Your task to perform on an android device: Open Google Maps and go to "Timeline" Image 0: 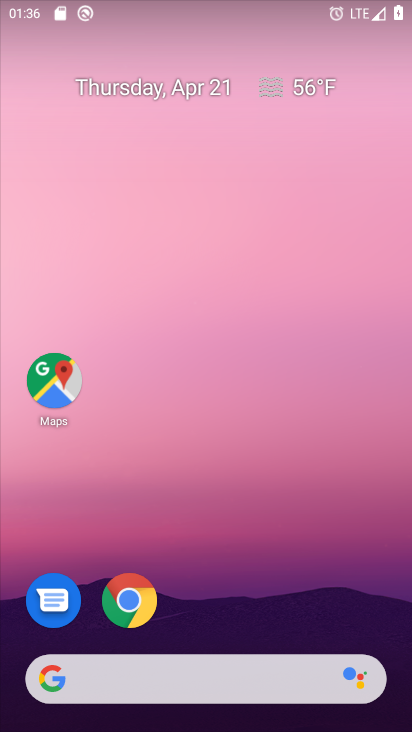
Step 0: click (61, 376)
Your task to perform on an android device: Open Google Maps and go to "Timeline" Image 1: 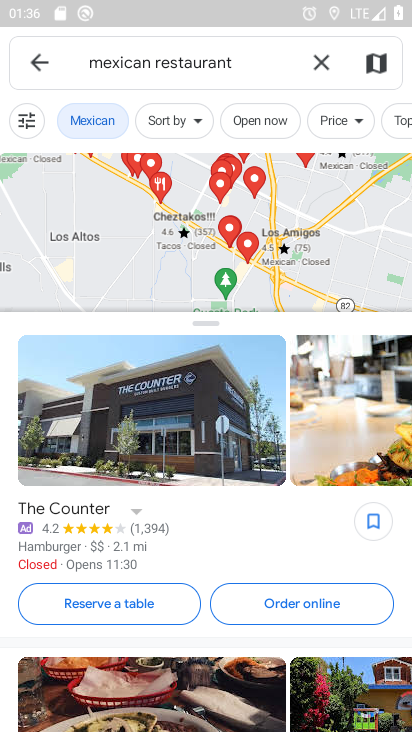
Step 1: click (42, 58)
Your task to perform on an android device: Open Google Maps and go to "Timeline" Image 2: 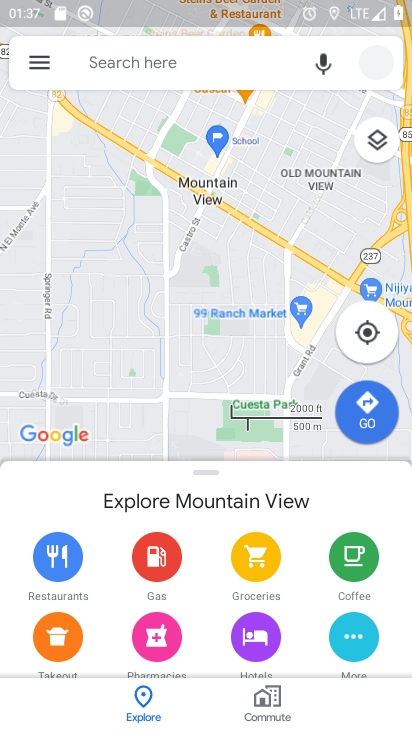
Step 2: click (42, 58)
Your task to perform on an android device: Open Google Maps and go to "Timeline" Image 3: 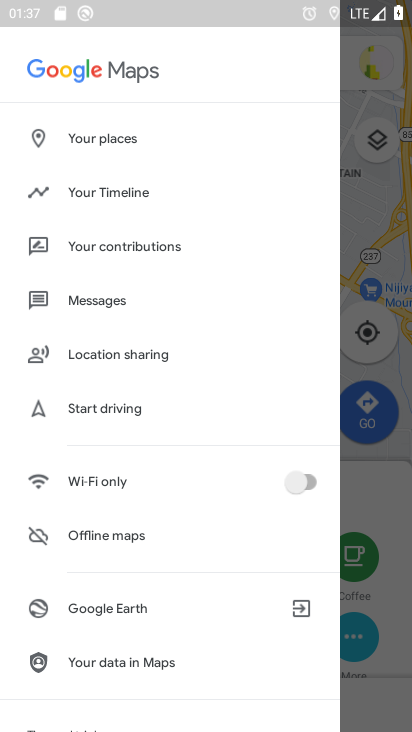
Step 3: click (102, 180)
Your task to perform on an android device: Open Google Maps and go to "Timeline" Image 4: 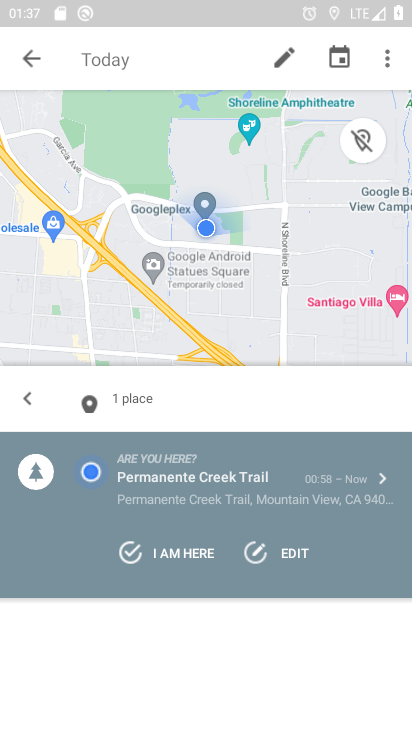
Step 4: task complete